Your task to perform on an android device: Go to Google maps Image 0: 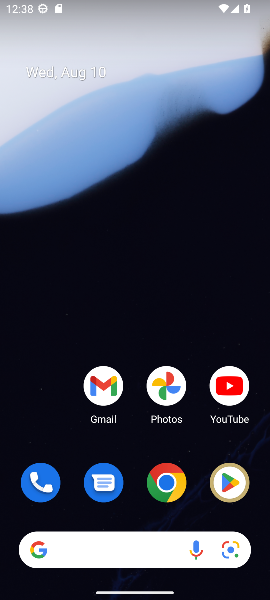
Step 0: drag from (45, 341) to (104, 79)
Your task to perform on an android device: Go to Google maps Image 1: 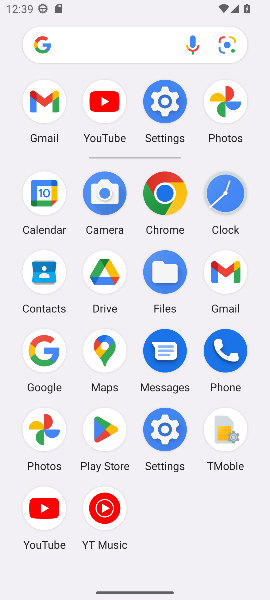
Step 1: click (104, 359)
Your task to perform on an android device: Go to Google maps Image 2: 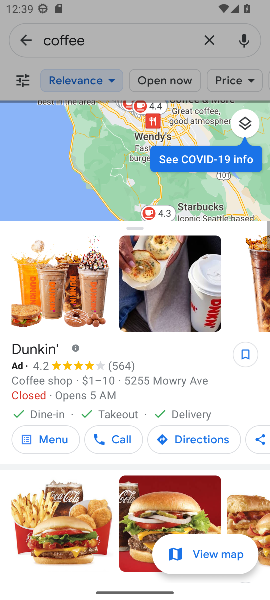
Step 2: task complete